Your task to perform on an android device: turn off notifications in google photos Image 0: 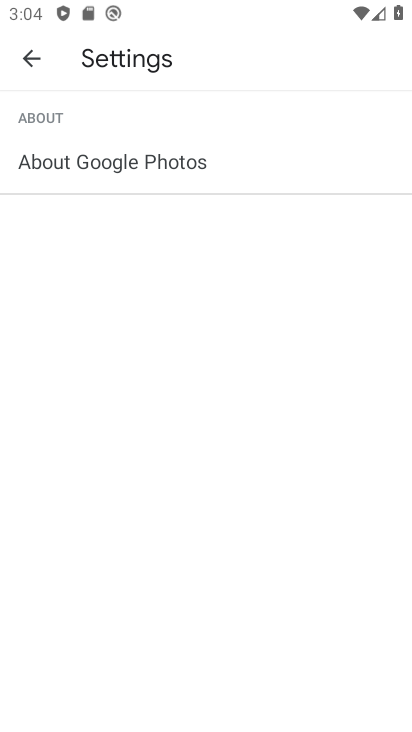
Step 0: press home button
Your task to perform on an android device: turn off notifications in google photos Image 1: 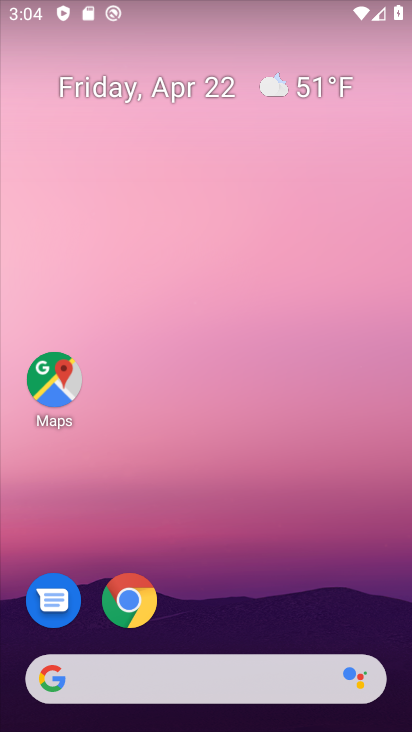
Step 1: drag from (268, 578) to (213, 210)
Your task to perform on an android device: turn off notifications in google photos Image 2: 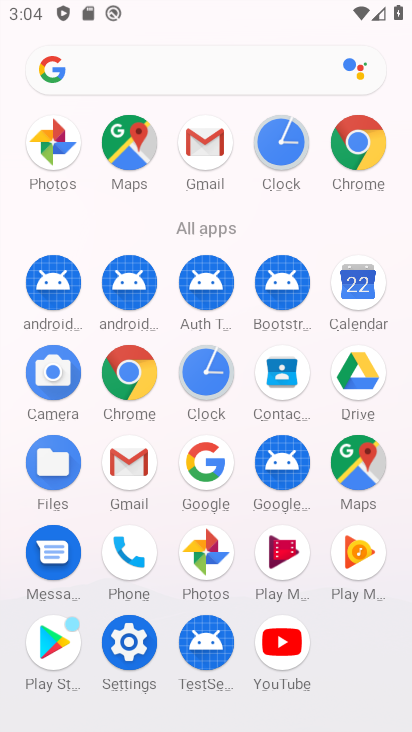
Step 2: click (206, 552)
Your task to perform on an android device: turn off notifications in google photos Image 3: 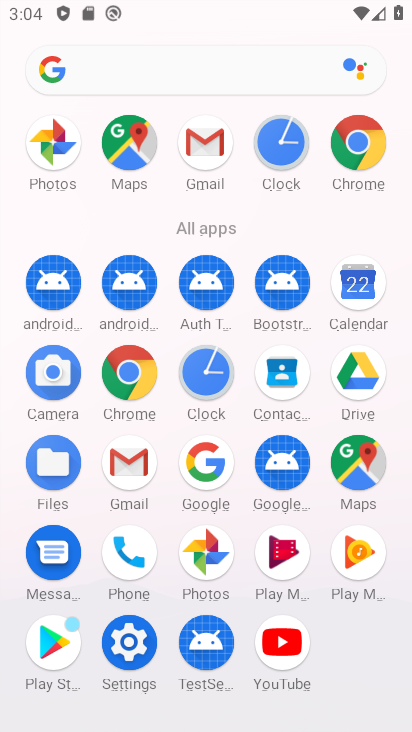
Step 3: click (206, 552)
Your task to perform on an android device: turn off notifications in google photos Image 4: 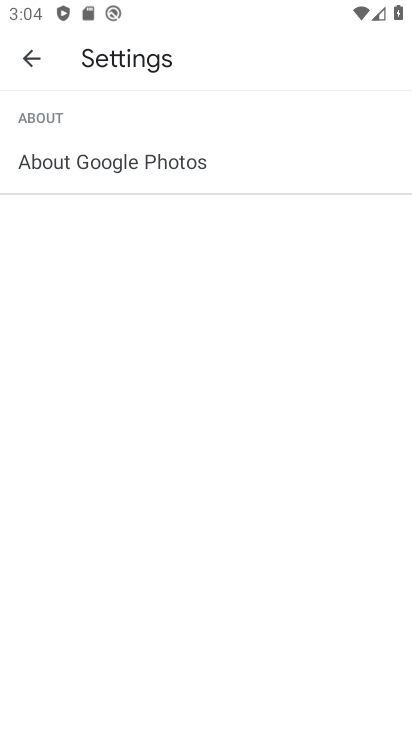
Step 4: click (31, 55)
Your task to perform on an android device: turn off notifications in google photos Image 5: 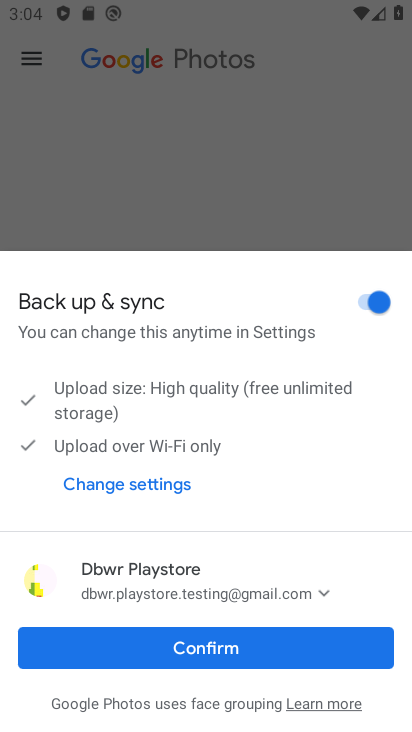
Step 5: click (210, 656)
Your task to perform on an android device: turn off notifications in google photos Image 6: 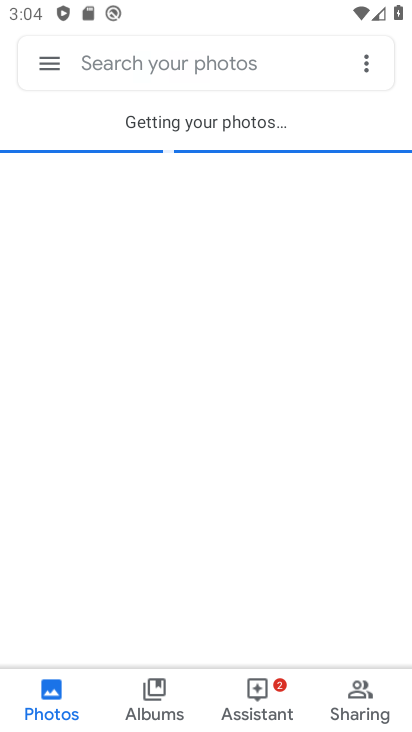
Step 6: click (43, 61)
Your task to perform on an android device: turn off notifications in google photos Image 7: 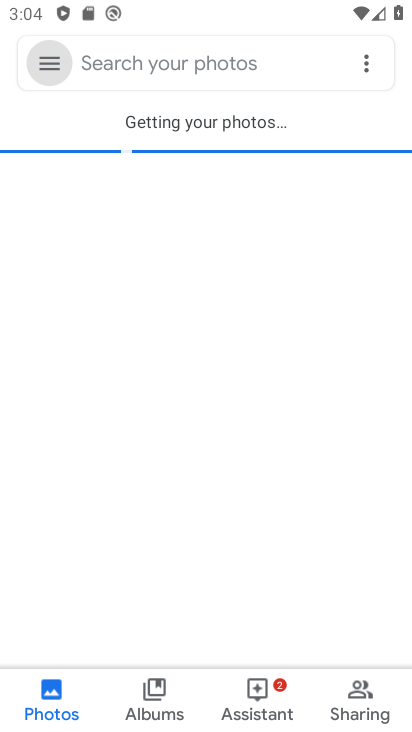
Step 7: drag from (43, 61) to (15, 322)
Your task to perform on an android device: turn off notifications in google photos Image 8: 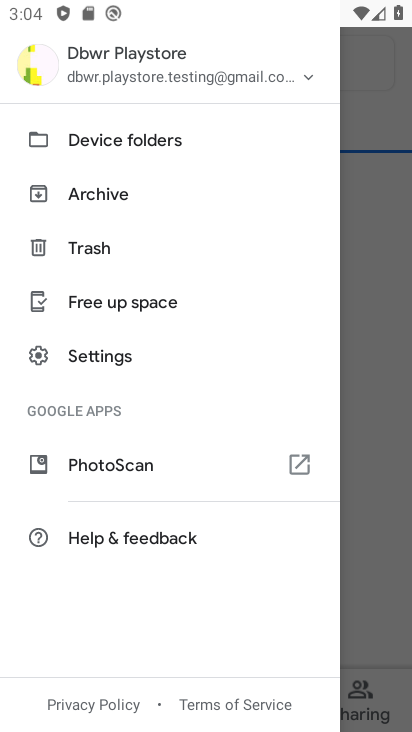
Step 8: click (98, 355)
Your task to perform on an android device: turn off notifications in google photos Image 9: 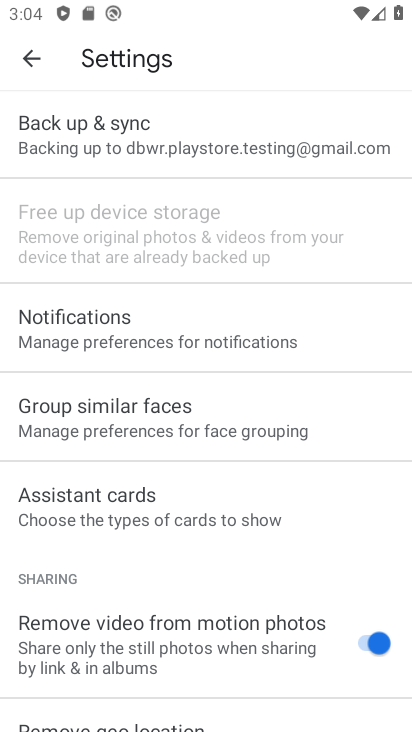
Step 9: click (83, 334)
Your task to perform on an android device: turn off notifications in google photos Image 10: 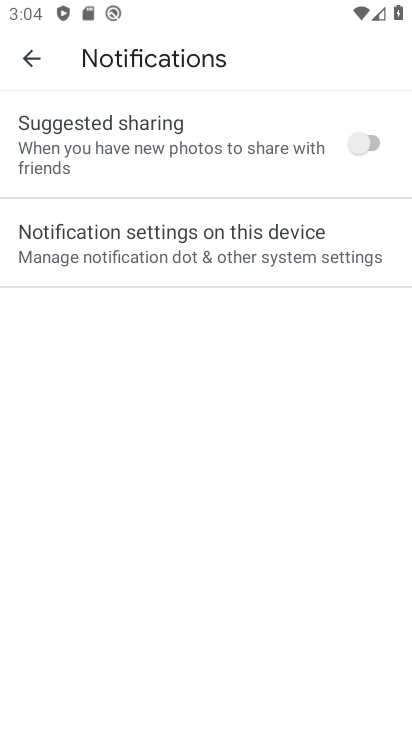
Step 10: click (82, 335)
Your task to perform on an android device: turn off notifications in google photos Image 11: 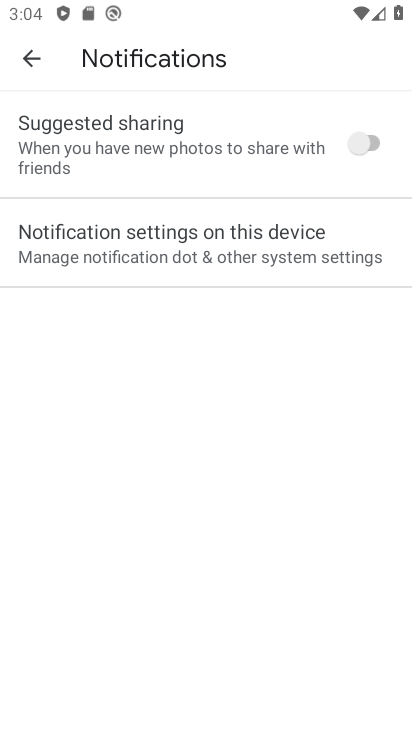
Step 11: click (109, 235)
Your task to perform on an android device: turn off notifications in google photos Image 12: 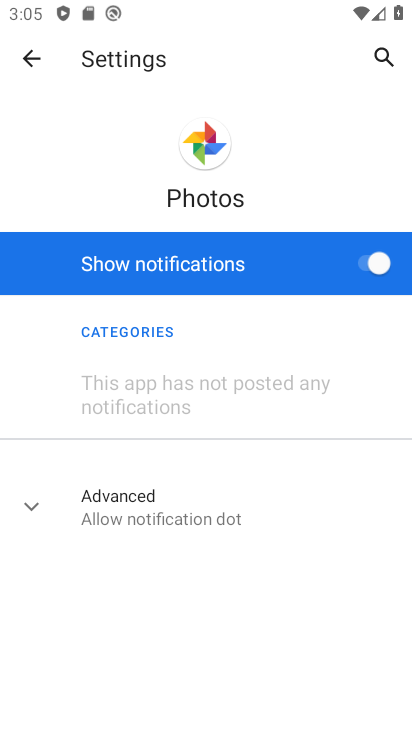
Step 12: click (373, 264)
Your task to perform on an android device: turn off notifications in google photos Image 13: 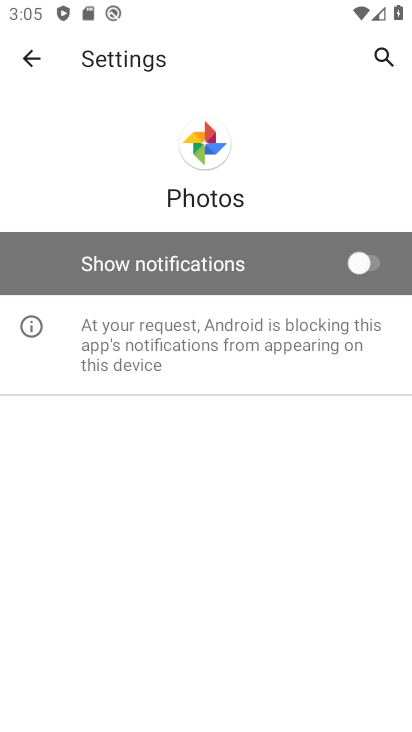
Step 13: task complete